Your task to perform on an android device: manage bookmarks in the chrome app Image 0: 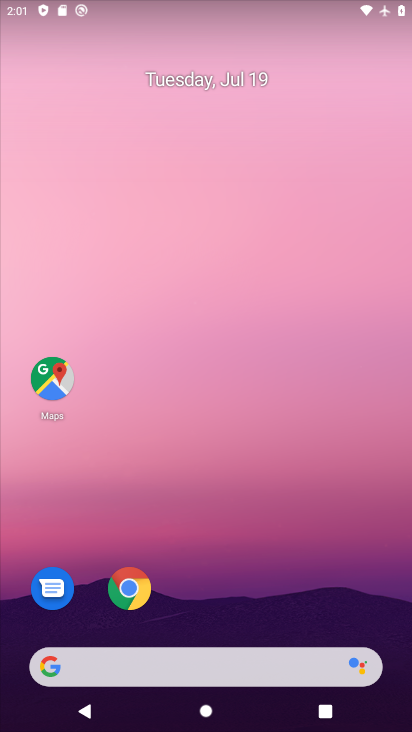
Step 0: press home button
Your task to perform on an android device: manage bookmarks in the chrome app Image 1: 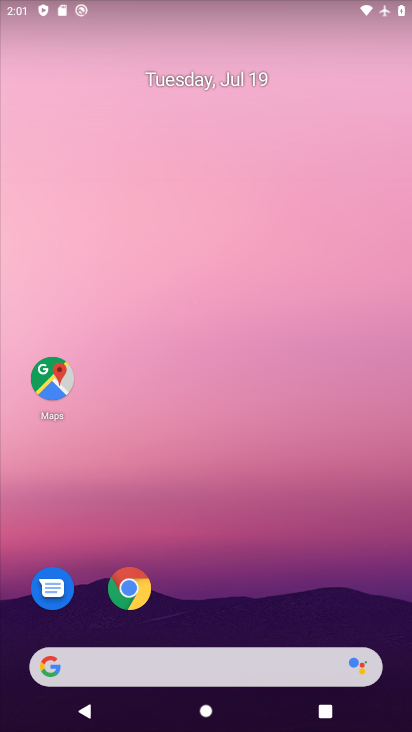
Step 1: drag from (242, 617) to (227, 117)
Your task to perform on an android device: manage bookmarks in the chrome app Image 2: 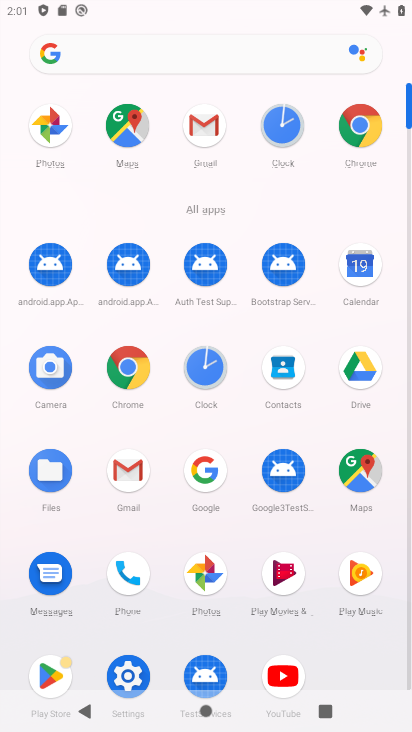
Step 2: click (353, 124)
Your task to perform on an android device: manage bookmarks in the chrome app Image 3: 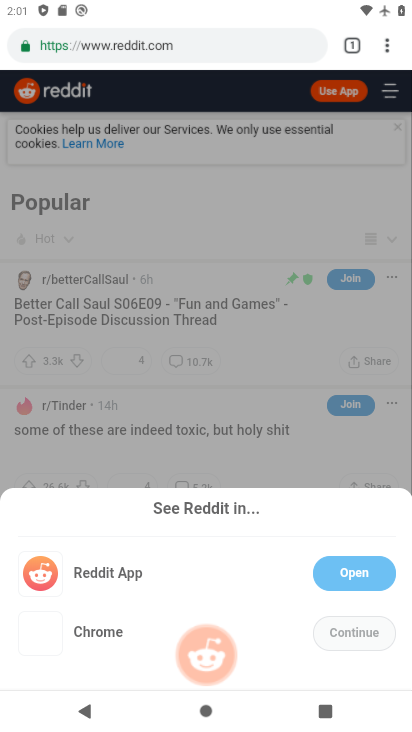
Step 3: drag from (390, 37) to (256, 176)
Your task to perform on an android device: manage bookmarks in the chrome app Image 4: 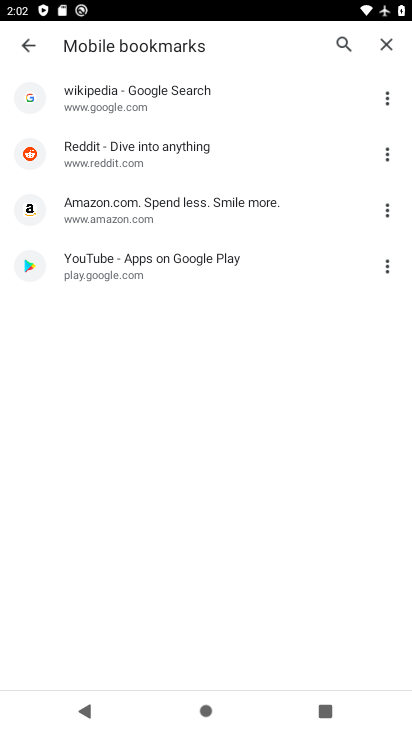
Step 4: click (390, 151)
Your task to perform on an android device: manage bookmarks in the chrome app Image 5: 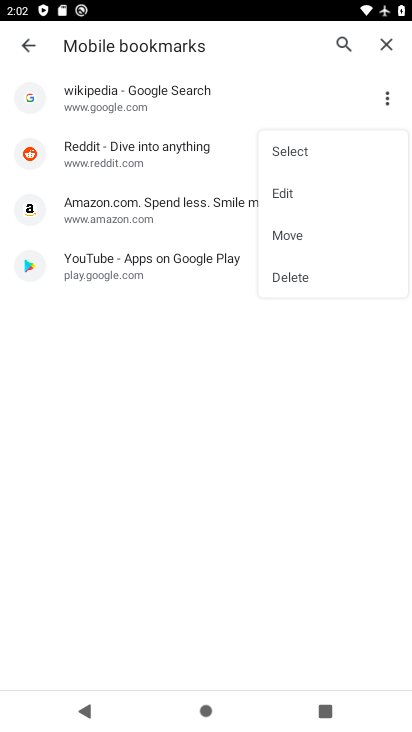
Step 5: click (288, 189)
Your task to perform on an android device: manage bookmarks in the chrome app Image 6: 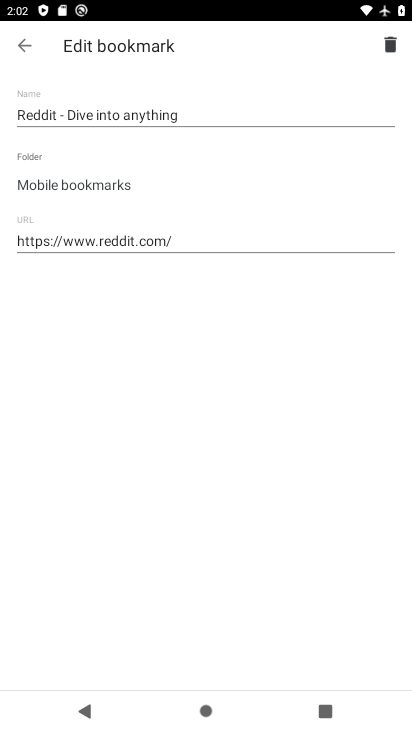
Step 6: task complete